Your task to perform on an android device: Go to location settings Image 0: 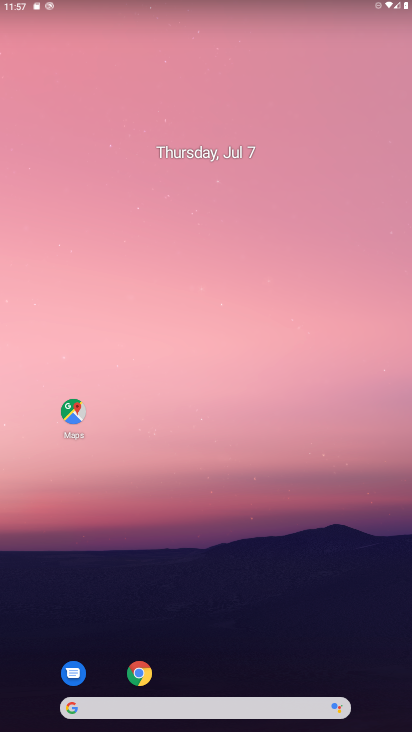
Step 0: drag from (403, 706) to (299, 171)
Your task to perform on an android device: Go to location settings Image 1: 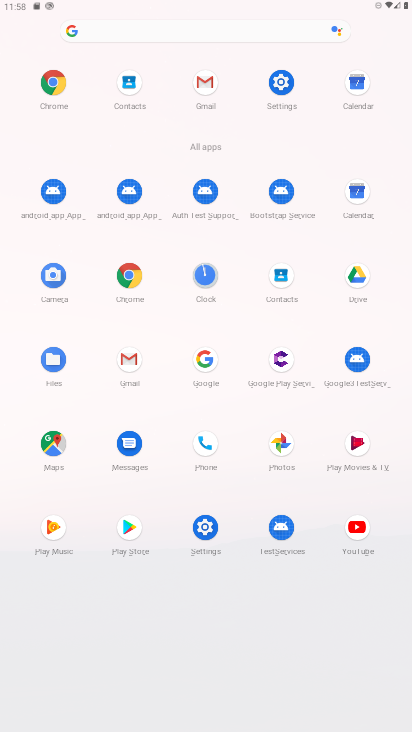
Step 1: press back button
Your task to perform on an android device: Go to location settings Image 2: 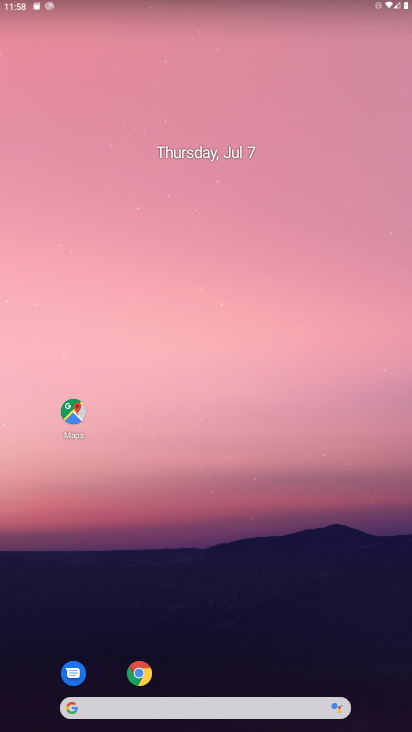
Step 2: drag from (398, 702) to (322, 73)
Your task to perform on an android device: Go to location settings Image 3: 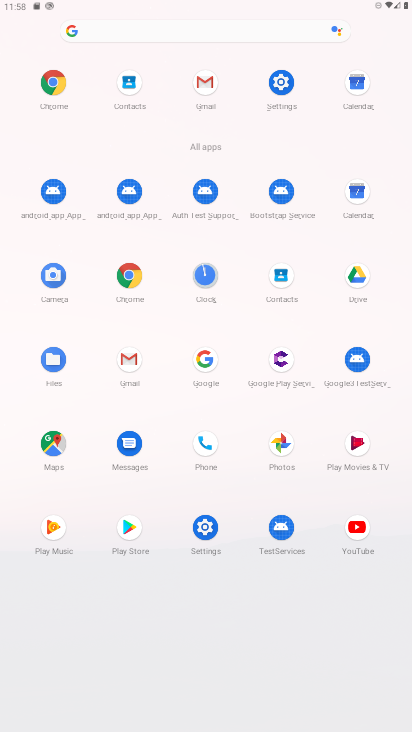
Step 3: click (279, 86)
Your task to perform on an android device: Go to location settings Image 4: 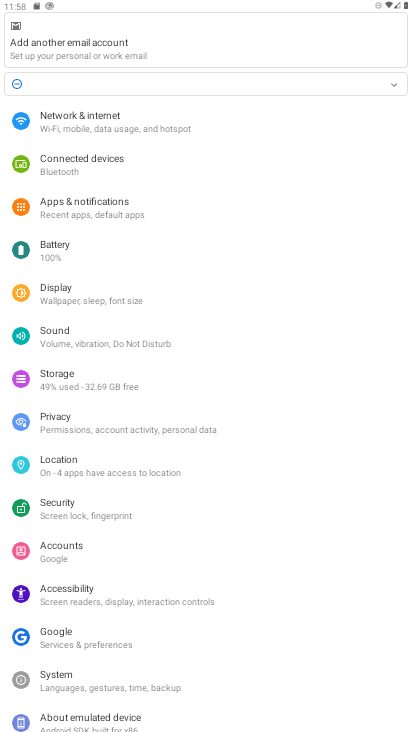
Step 4: click (68, 467)
Your task to perform on an android device: Go to location settings Image 5: 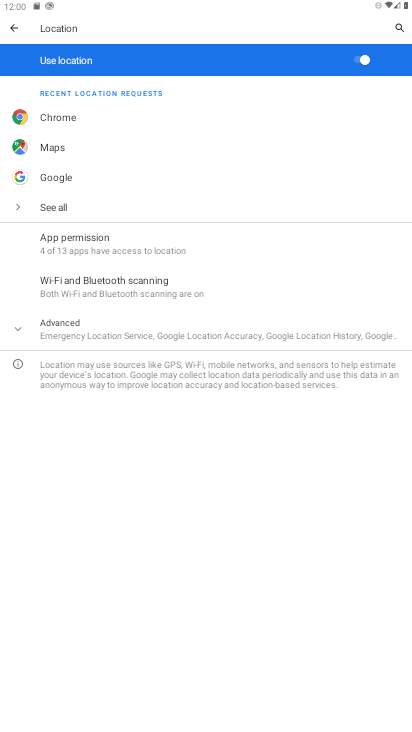
Step 5: press back button
Your task to perform on an android device: Go to location settings Image 6: 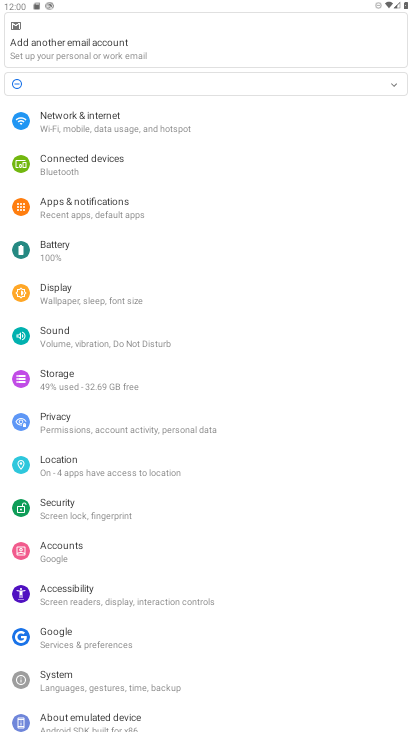
Step 6: click (56, 463)
Your task to perform on an android device: Go to location settings Image 7: 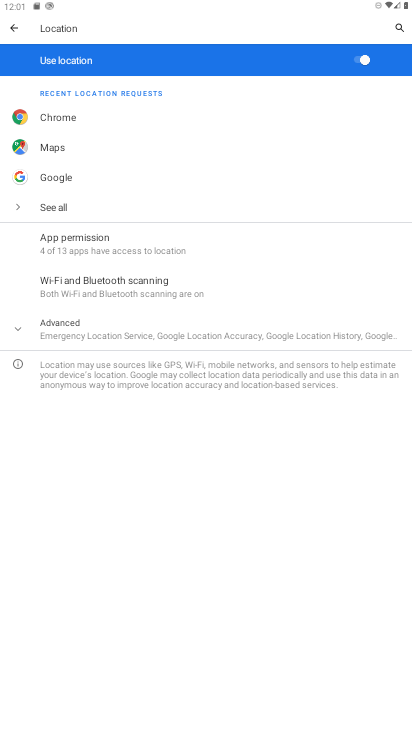
Step 7: press back button
Your task to perform on an android device: Go to location settings Image 8: 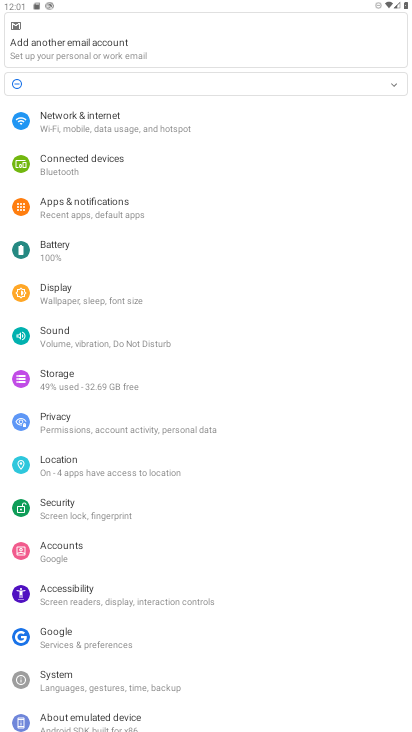
Step 8: click (73, 455)
Your task to perform on an android device: Go to location settings Image 9: 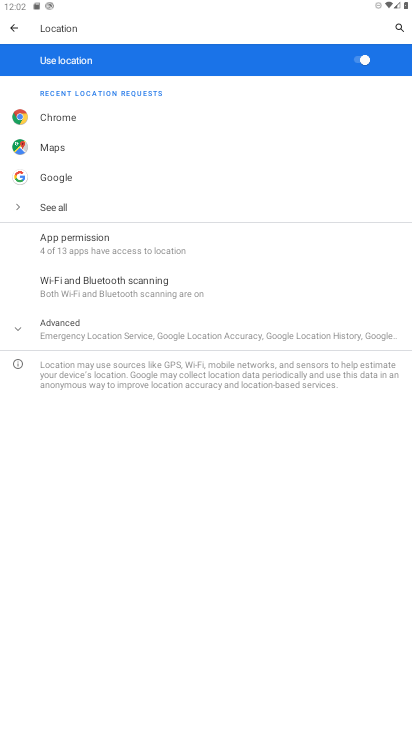
Step 9: task complete